Your task to perform on an android device: toggle airplane mode Image 0: 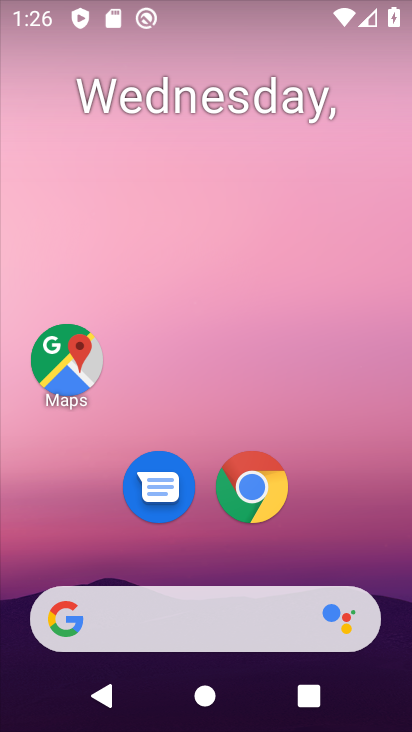
Step 0: drag from (312, 496) to (304, 4)
Your task to perform on an android device: toggle airplane mode Image 1: 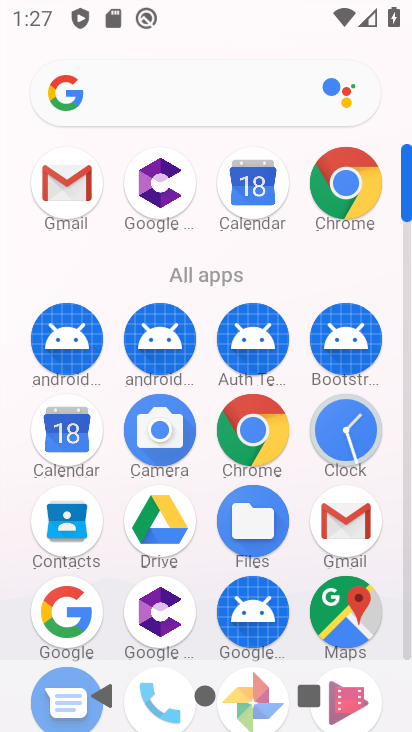
Step 1: drag from (195, 634) to (274, 192)
Your task to perform on an android device: toggle airplane mode Image 2: 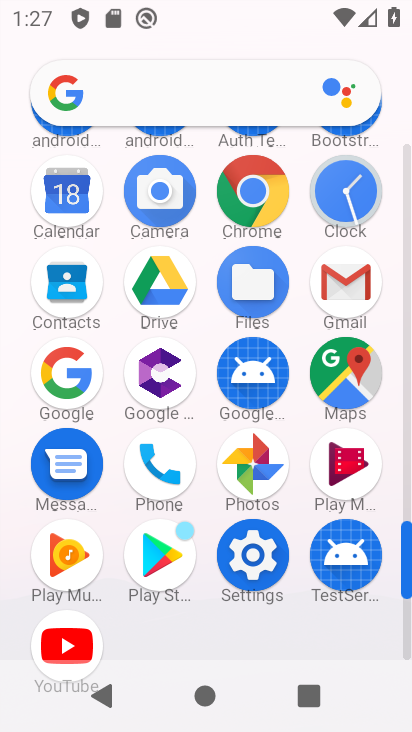
Step 2: click (257, 560)
Your task to perform on an android device: toggle airplane mode Image 3: 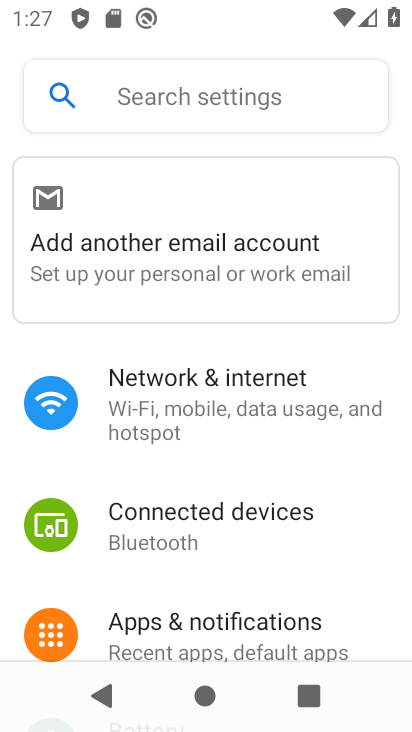
Step 3: click (201, 372)
Your task to perform on an android device: toggle airplane mode Image 4: 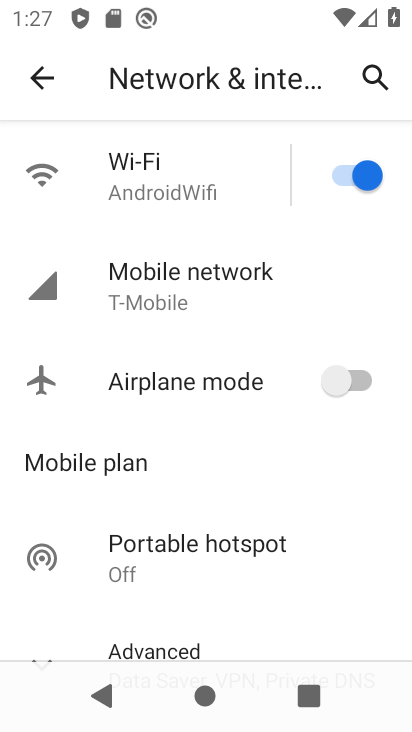
Step 4: click (330, 384)
Your task to perform on an android device: toggle airplane mode Image 5: 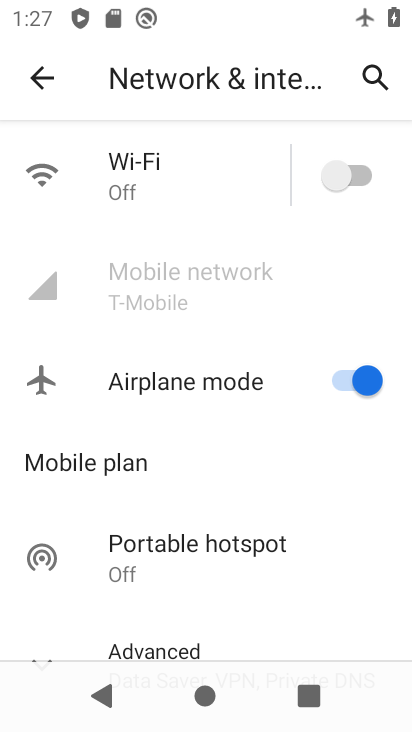
Step 5: task complete